Your task to perform on an android device: delete the emails in spam in the gmail app Image 0: 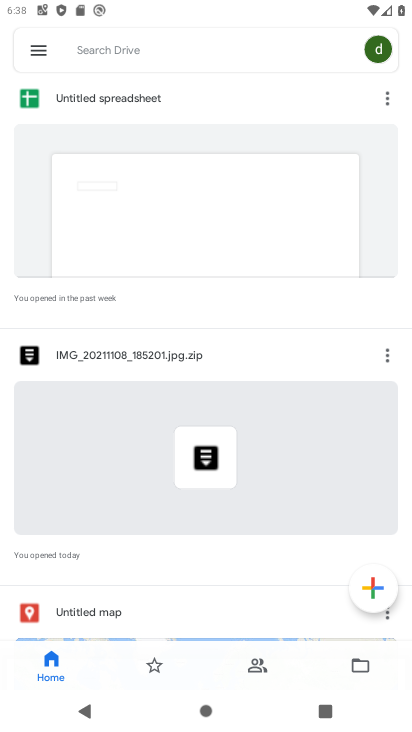
Step 0: press home button
Your task to perform on an android device: delete the emails in spam in the gmail app Image 1: 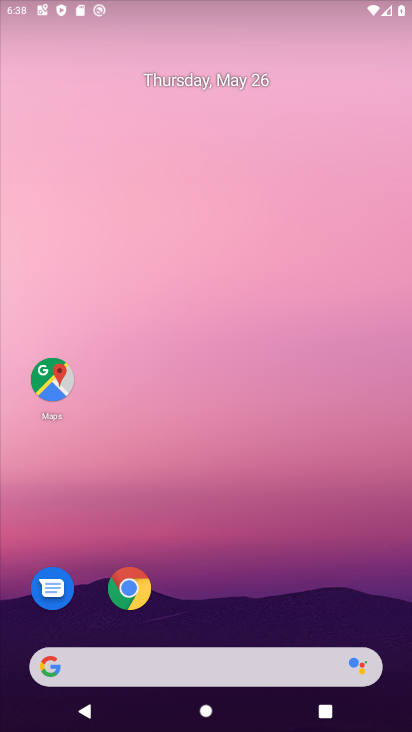
Step 1: drag from (335, 582) to (280, 28)
Your task to perform on an android device: delete the emails in spam in the gmail app Image 2: 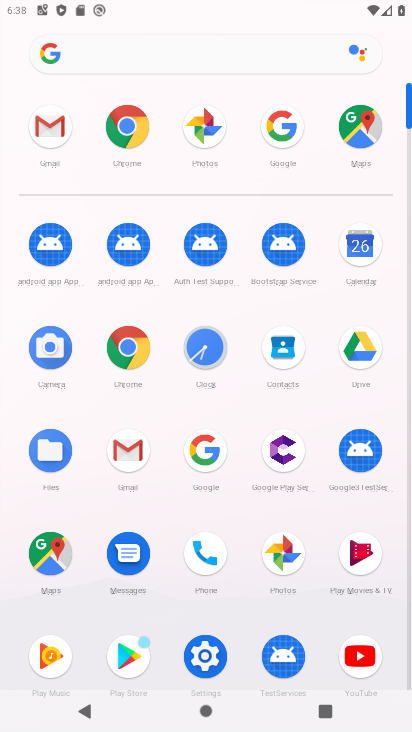
Step 2: click (137, 442)
Your task to perform on an android device: delete the emails in spam in the gmail app Image 3: 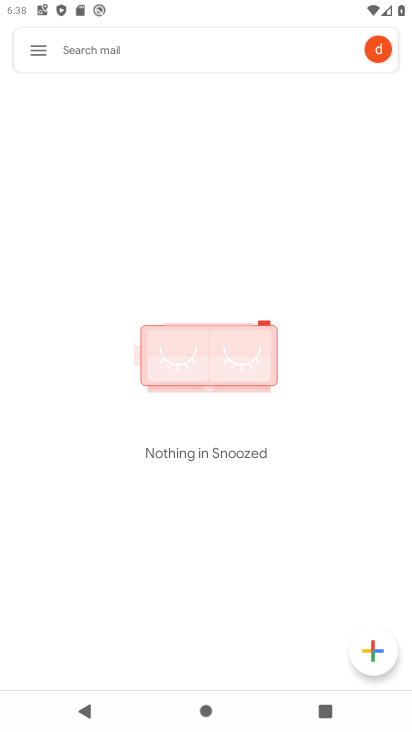
Step 3: click (24, 59)
Your task to perform on an android device: delete the emails in spam in the gmail app Image 4: 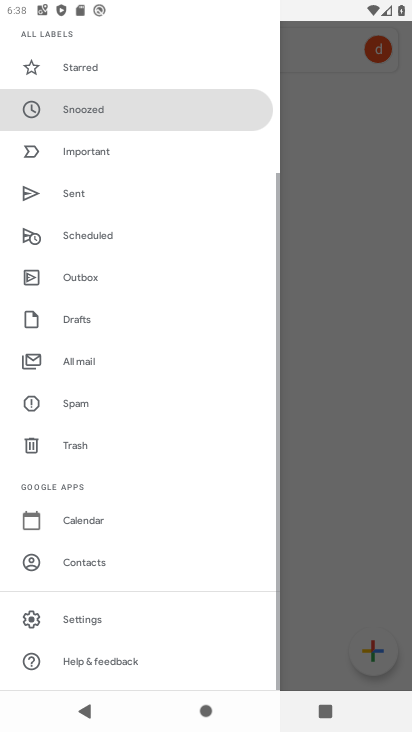
Step 4: click (115, 410)
Your task to perform on an android device: delete the emails in spam in the gmail app Image 5: 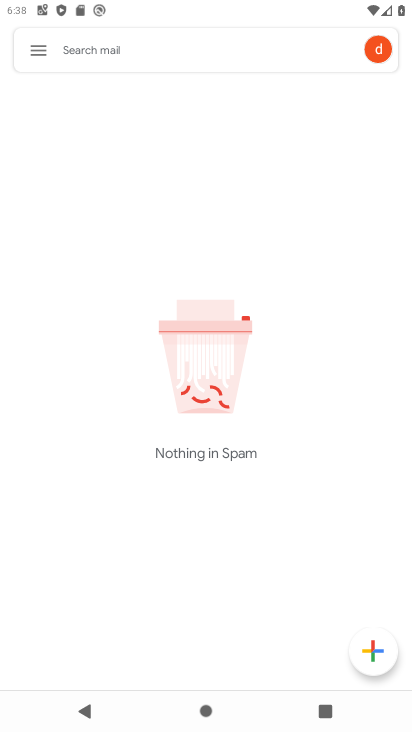
Step 5: task complete